Your task to perform on an android device: Go to ESPN.com Image 0: 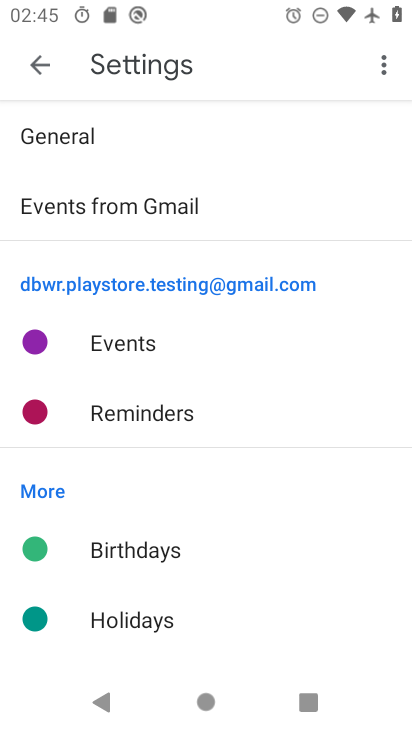
Step 0: press home button
Your task to perform on an android device: Go to ESPN.com Image 1: 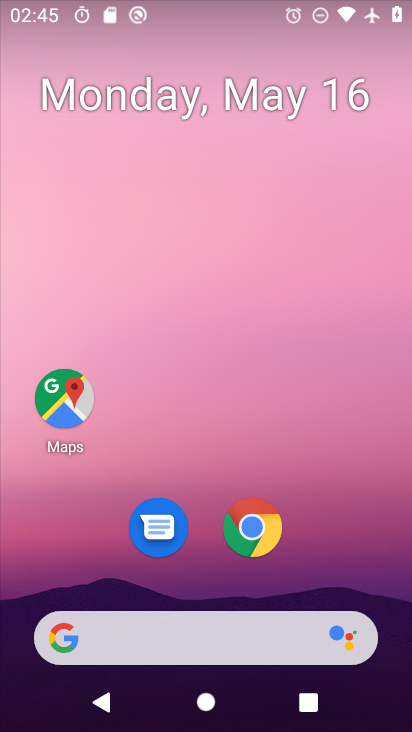
Step 1: click (248, 545)
Your task to perform on an android device: Go to ESPN.com Image 2: 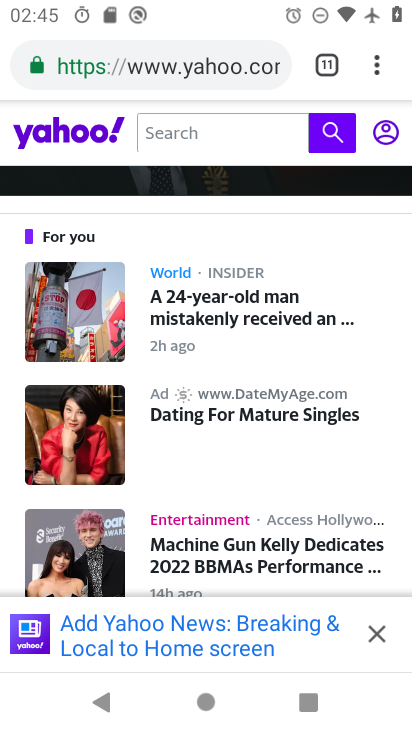
Step 2: drag from (372, 68) to (227, 123)
Your task to perform on an android device: Go to ESPN.com Image 3: 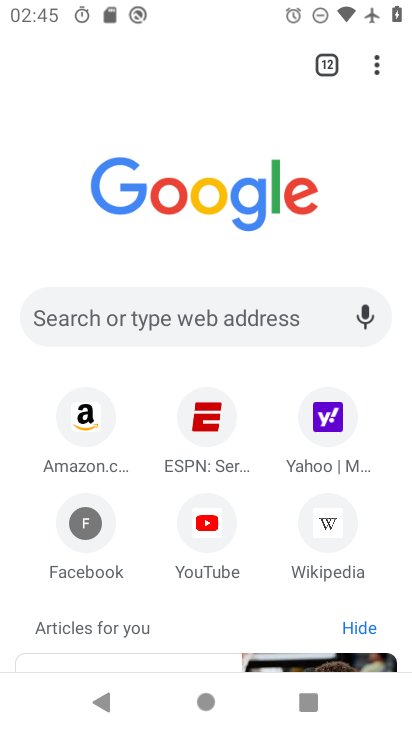
Step 3: click (197, 425)
Your task to perform on an android device: Go to ESPN.com Image 4: 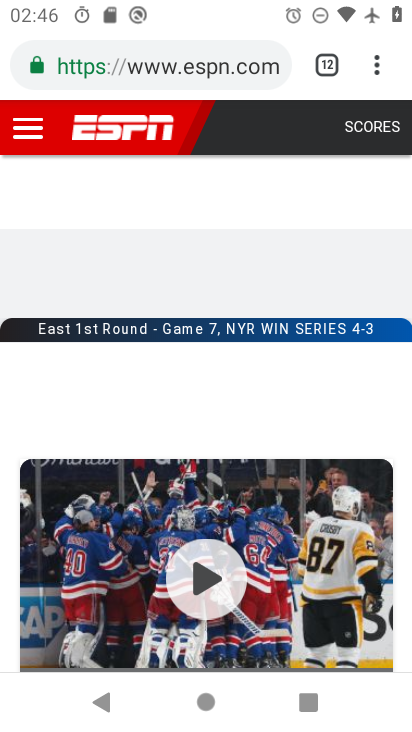
Step 4: task complete